Your task to perform on an android device: Do I have any events today? Image 0: 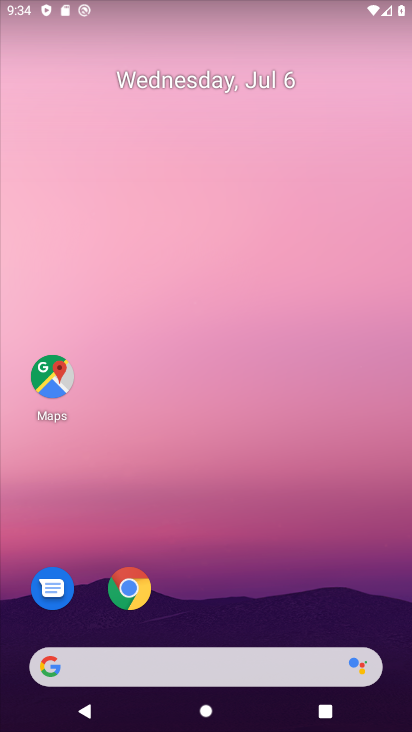
Step 0: drag from (203, 588) to (310, 74)
Your task to perform on an android device: Do I have any events today? Image 1: 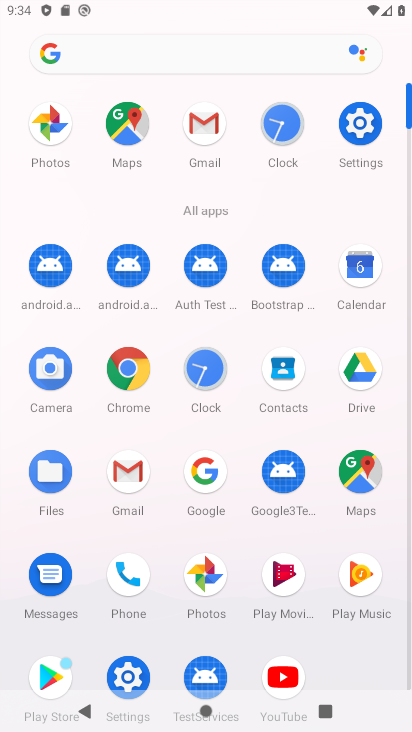
Step 1: click (347, 266)
Your task to perform on an android device: Do I have any events today? Image 2: 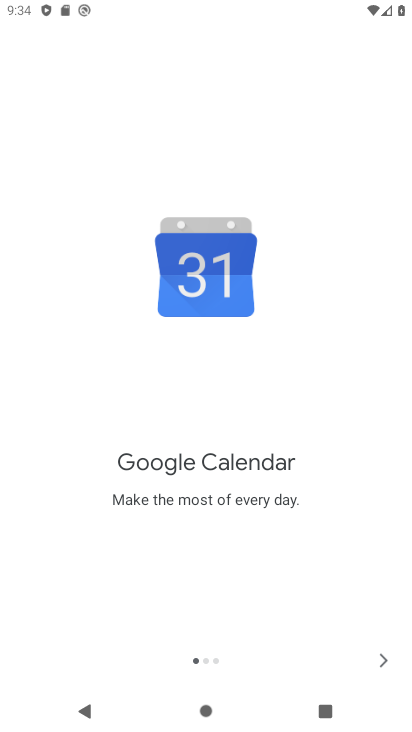
Step 2: click (374, 666)
Your task to perform on an android device: Do I have any events today? Image 3: 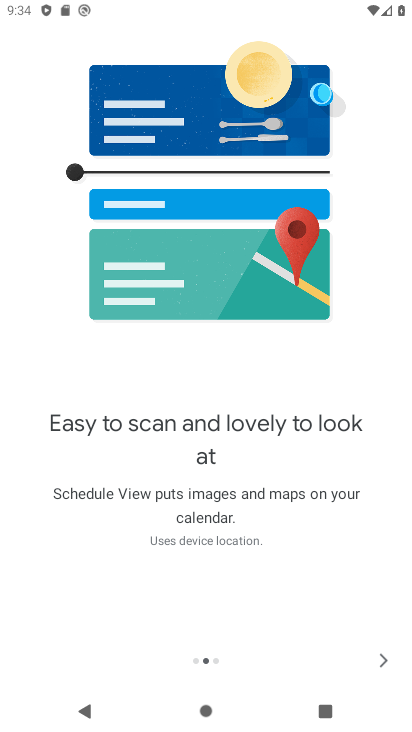
Step 3: click (374, 651)
Your task to perform on an android device: Do I have any events today? Image 4: 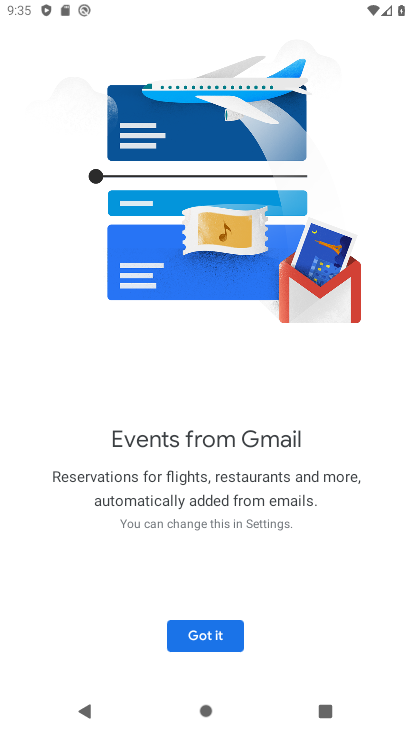
Step 4: click (198, 637)
Your task to perform on an android device: Do I have any events today? Image 5: 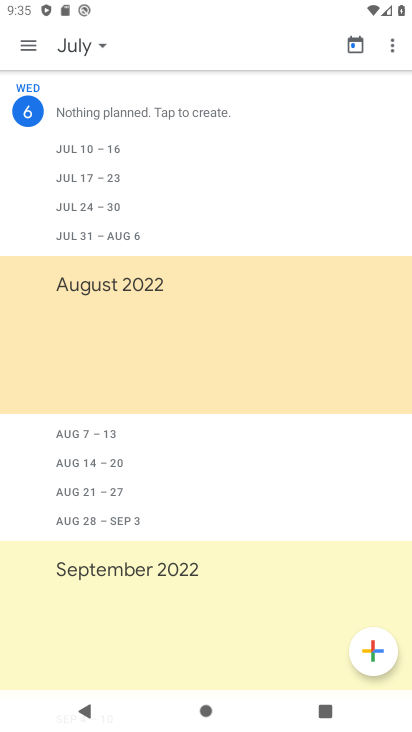
Step 5: click (24, 42)
Your task to perform on an android device: Do I have any events today? Image 6: 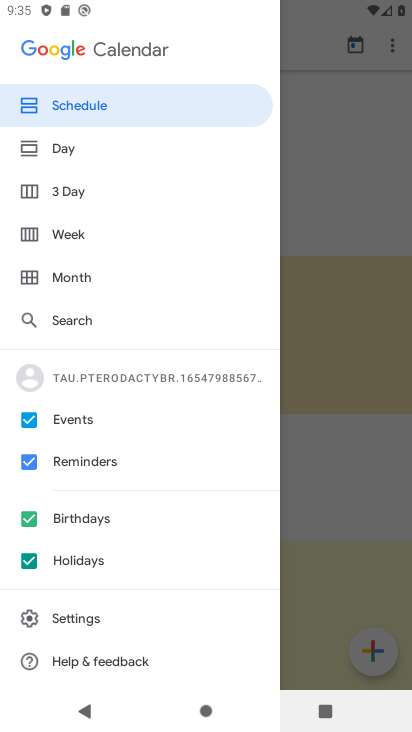
Step 6: click (86, 108)
Your task to perform on an android device: Do I have any events today? Image 7: 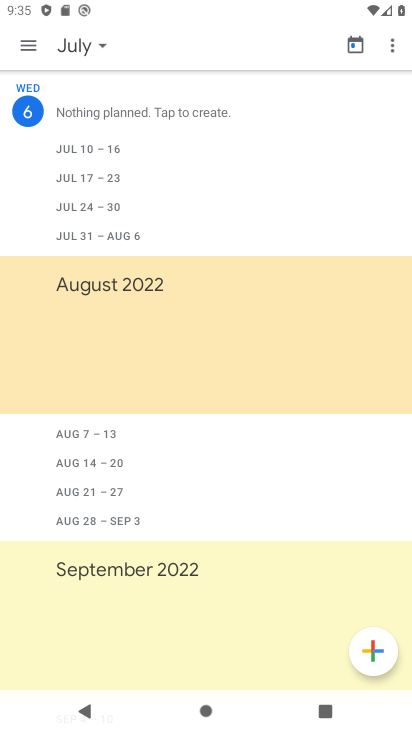
Step 7: drag from (177, 528) to (262, 189)
Your task to perform on an android device: Do I have any events today? Image 8: 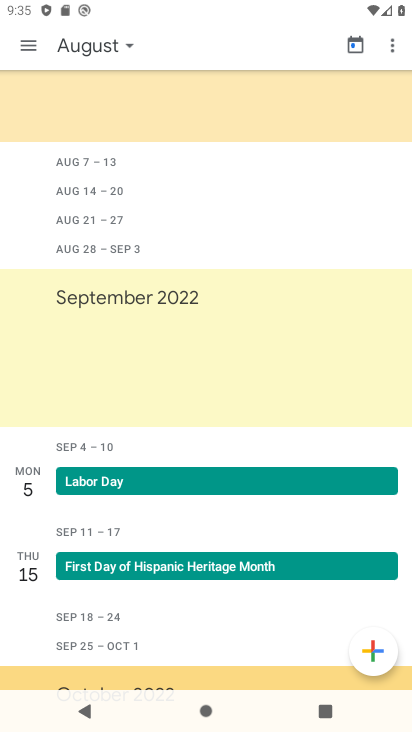
Step 8: click (102, 47)
Your task to perform on an android device: Do I have any events today? Image 9: 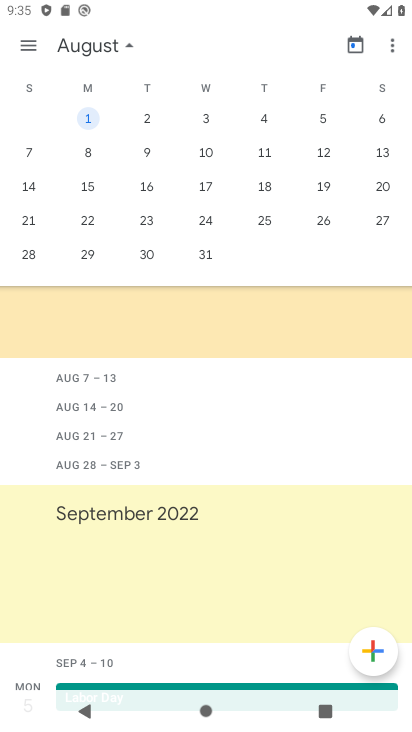
Step 9: drag from (12, 194) to (392, 202)
Your task to perform on an android device: Do I have any events today? Image 10: 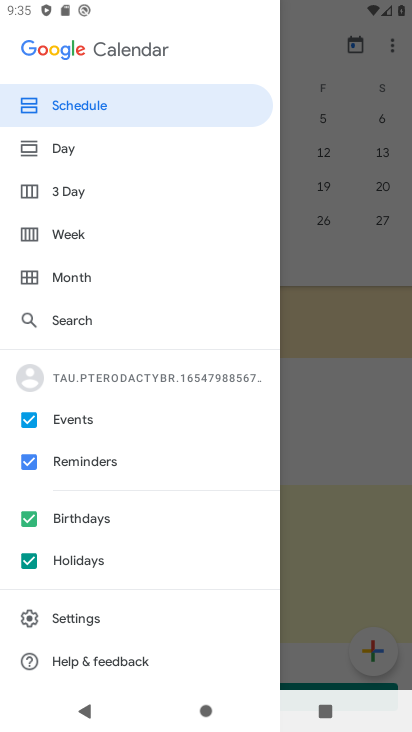
Step 10: drag from (391, 199) to (180, 200)
Your task to perform on an android device: Do I have any events today? Image 11: 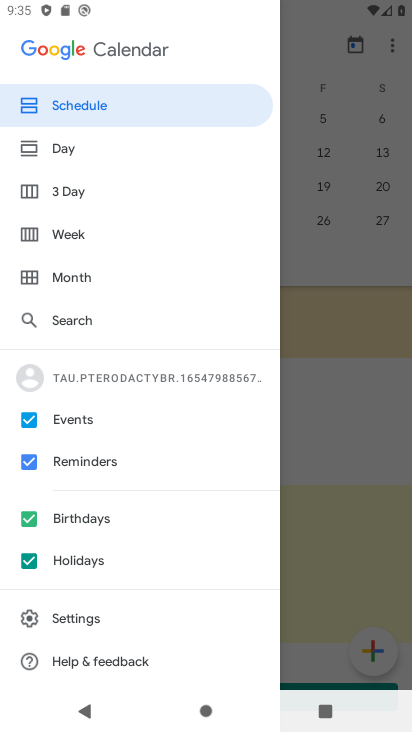
Step 11: click (351, 231)
Your task to perform on an android device: Do I have any events today? Image 12: 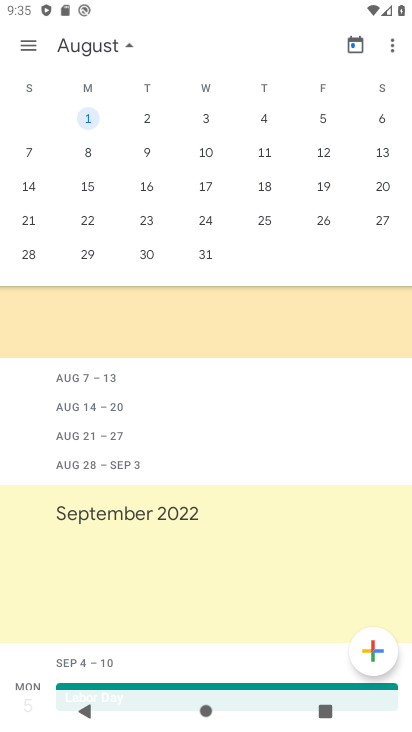
Step 12: drag from (110, 194) to (411, 196)
Your task to perform on an android device: Do I have any events today? Image 13: 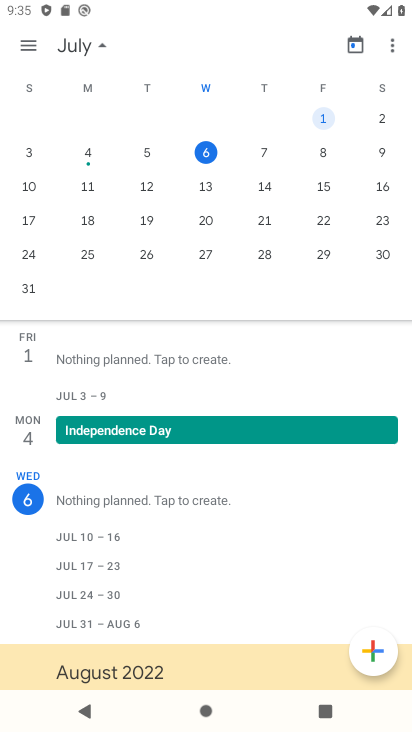
Step 13: click (63, 198)
Your task to perform on an android device: Do I have any events today? Image 14: 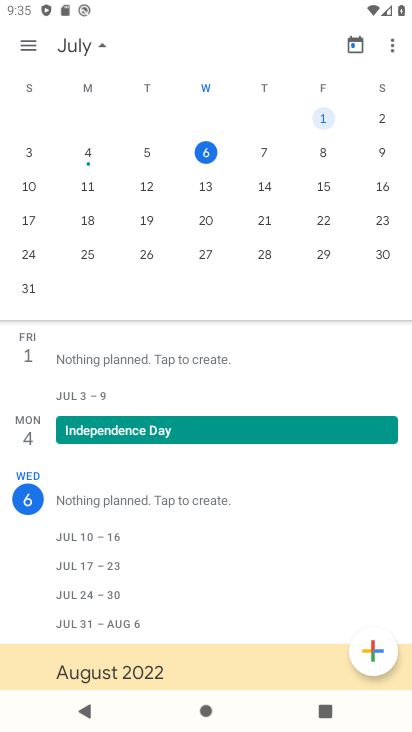
Step 14: task complete